Your task to perform on an android device: Set the phone to "Do not disturb". Image 0: 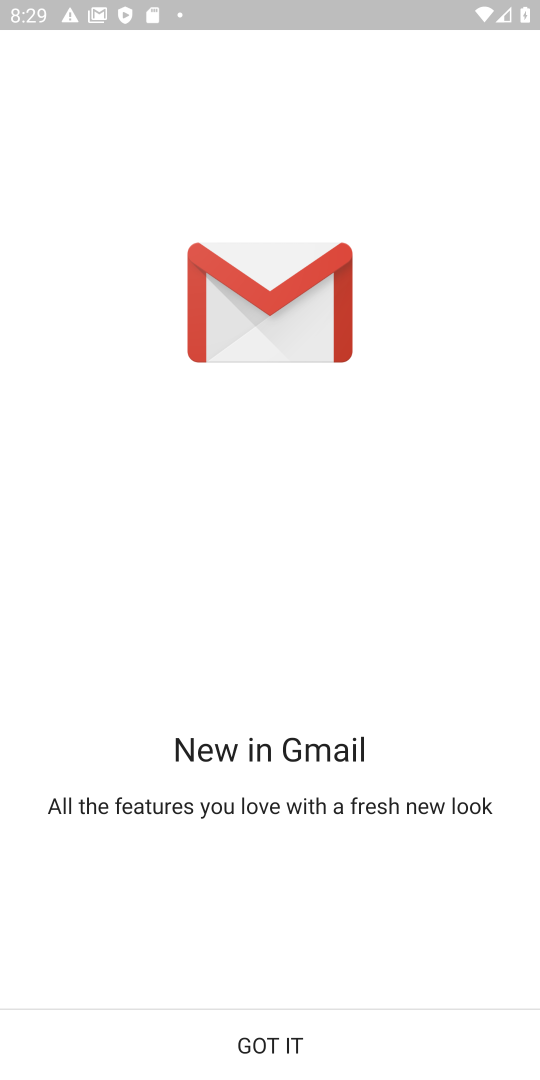
Step 0: click (262, 1057)
Your task to perform on an android device: Set the phone to "Do not disturb". Image 1: 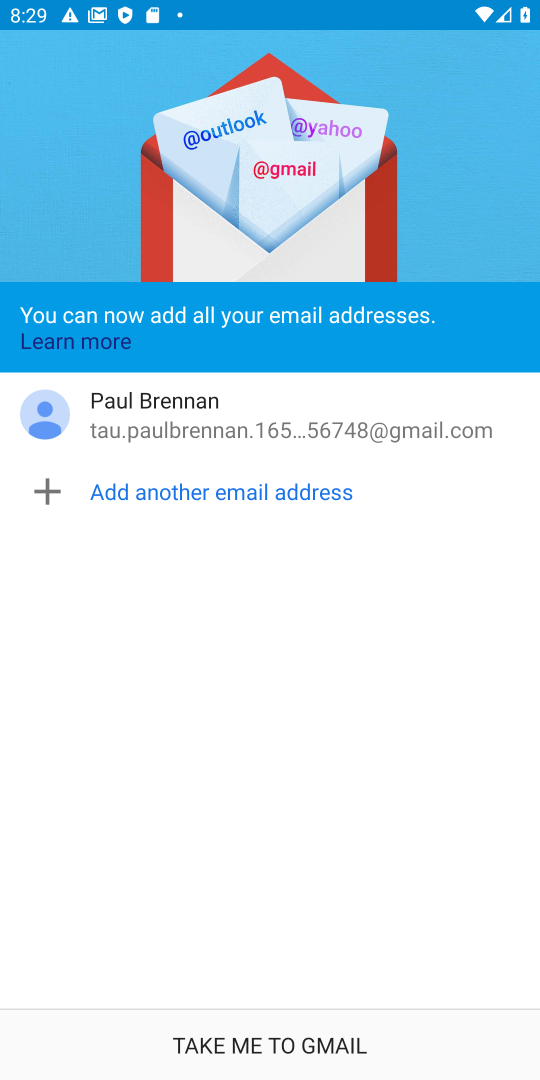
Step 1: press home button
Your task to perform on an android device: Set the phone to "Do not disturb". Image 2: 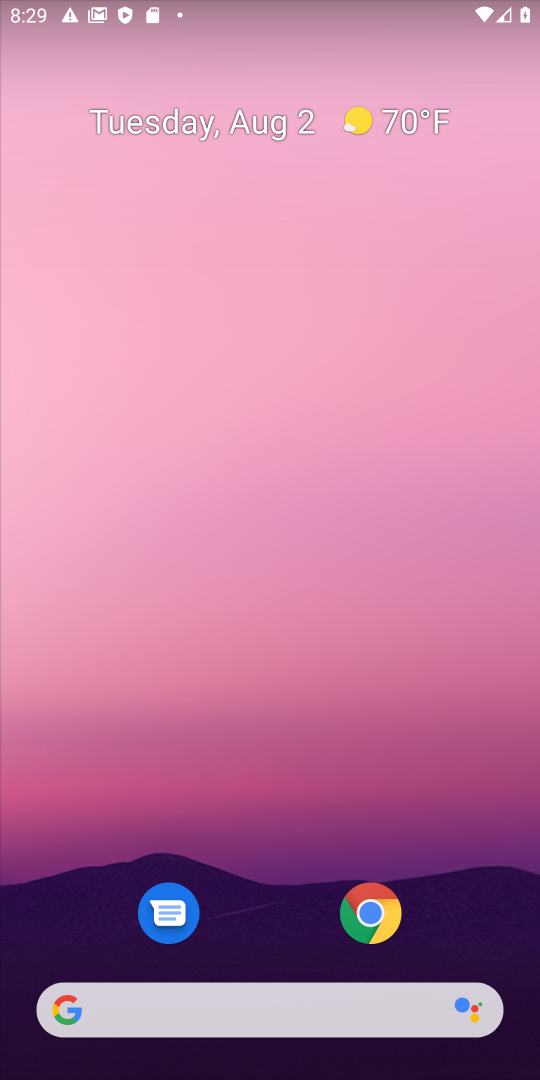
Step 2: drag from (314, 10) to (300, 465)
Your task to perform on an android device: Set the phone to "Do not disturb". Image 3: 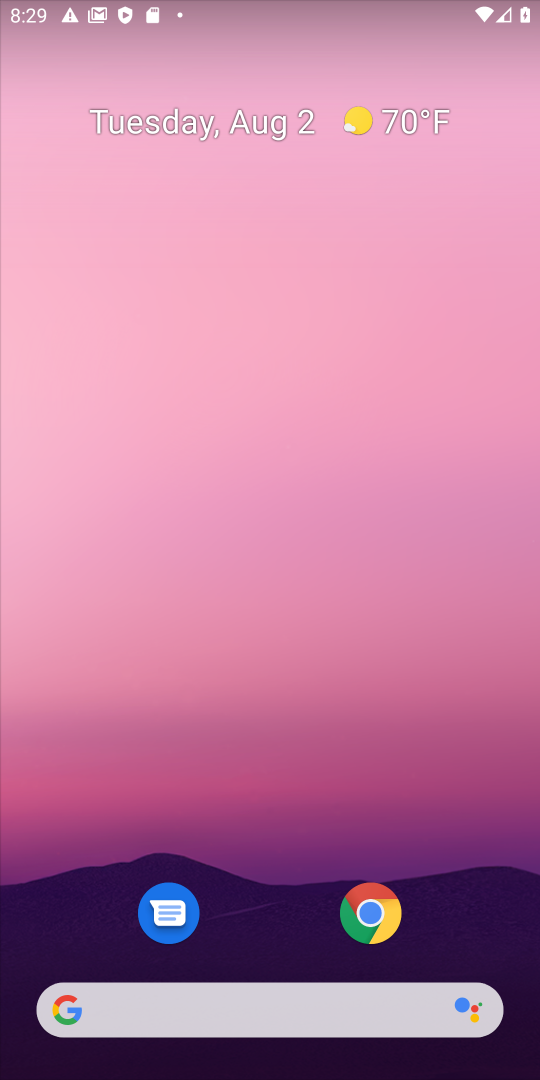
Step 3: drag from (303, 8) to (313, 540)
Your task to perform on an android device: Set the phone to "Do not disturb". Image 4: 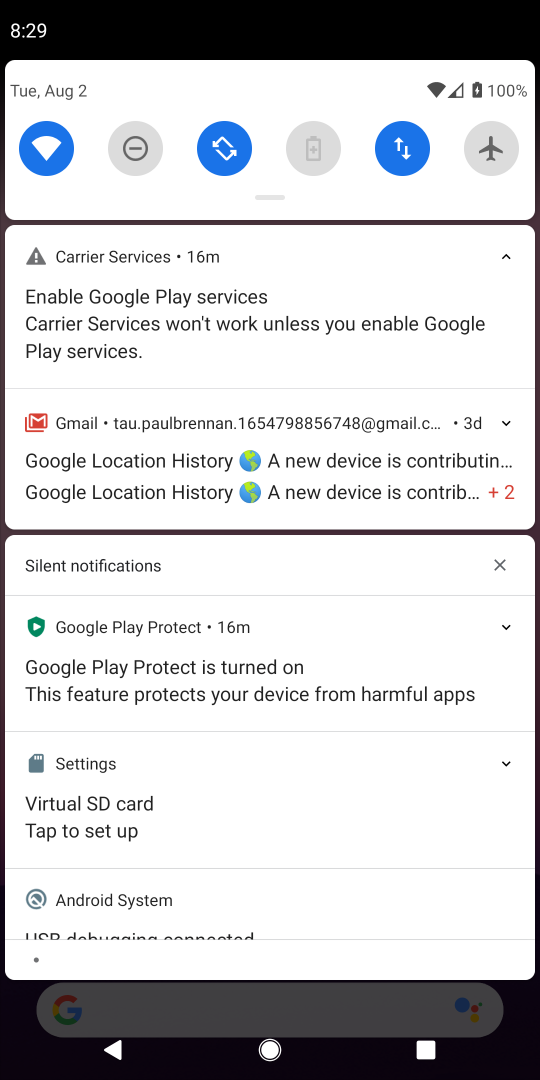
Step 4: drag from (278, 164) to (259, 515)
Your task to perform on an android device: Set the phone to "Do not disturb". Image 5: 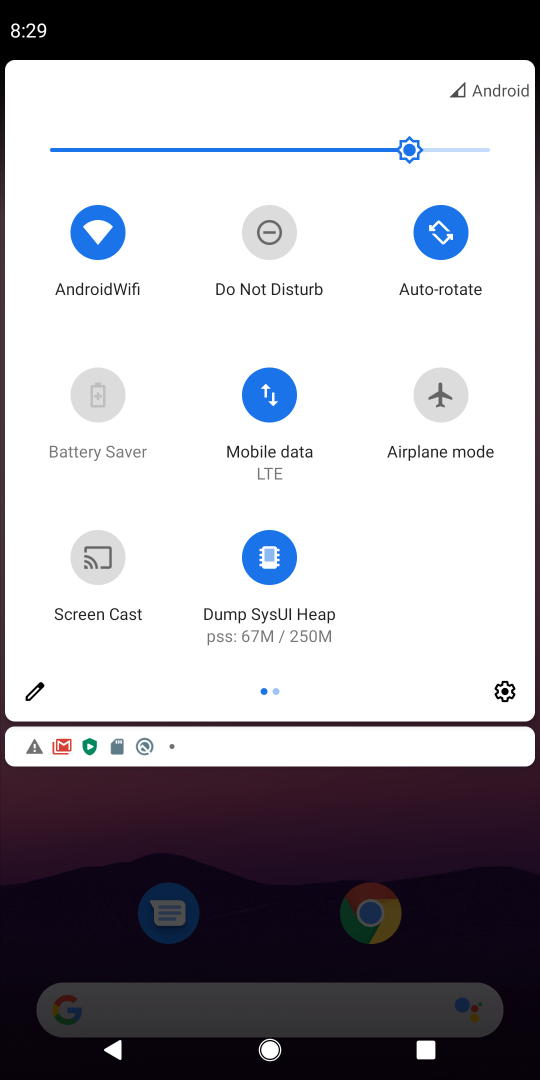
Step 5: click (268, 241)
Your task to perform on an android device: Set the phone to "Do not disturb". Image 6: 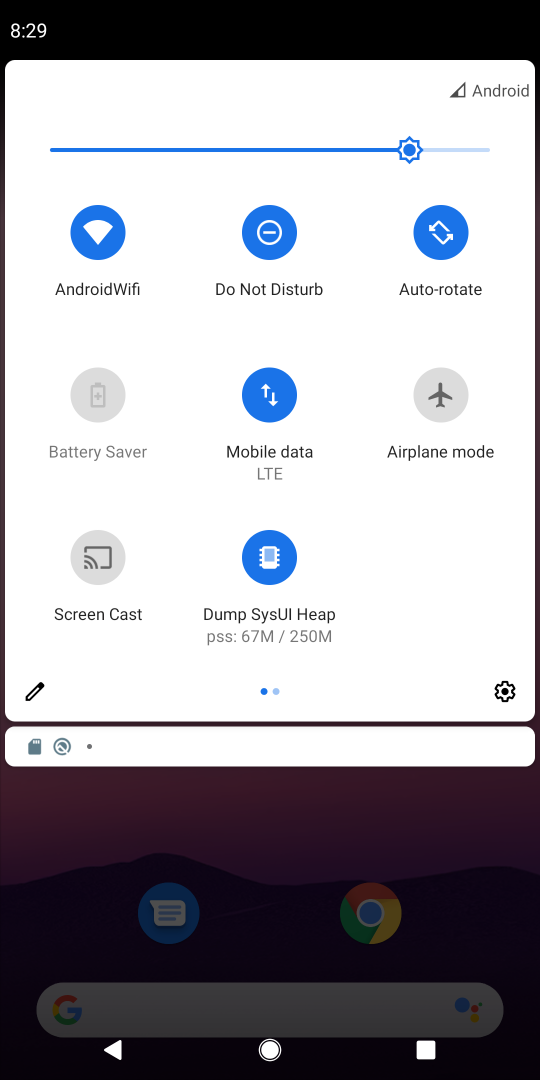
Step 6: task complete